Your task to perform on an android device: Open the phone app and click the voicemail tab. Image 0: 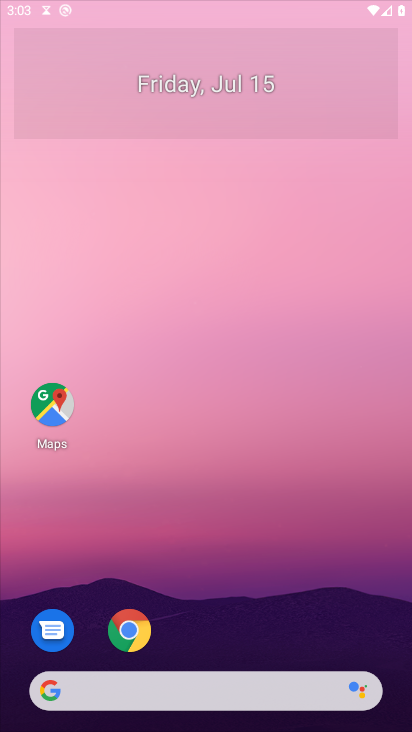
Step 0: press home button
Your task to perform on an android device: Open the phone app and click the voicemail tab. Image 1: 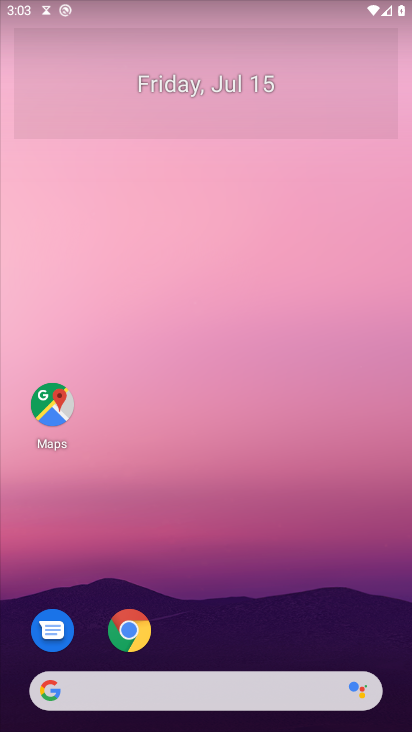
Step 1: drag from (290, 507) to (266, 85)
Your task to perform on an android device: Open the phone app and click the voicemail tab. Image 2: 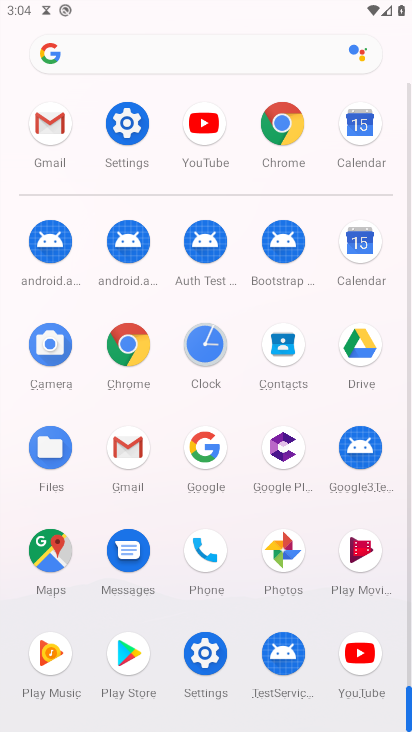
Step 2: click (208, 549)
Your task to perform on an android device: Open the phone app and click the voicemail tab. Image 3: 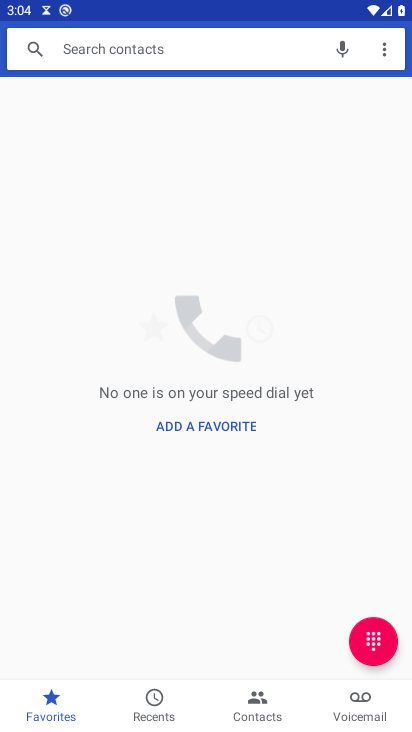
Step 3: click (357, 703)
Your task to perform on an android device: Open the phone app and click the voicemail tab. Image 4: 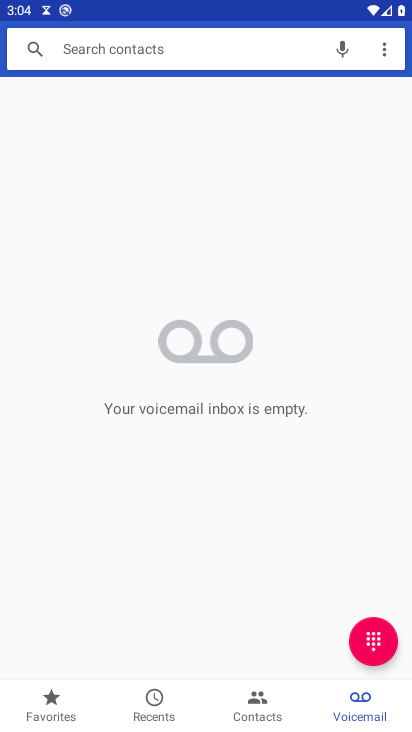
Step 4: task complete